Your task to perform on an android device: turn on data saver in the chrome app Image 0: 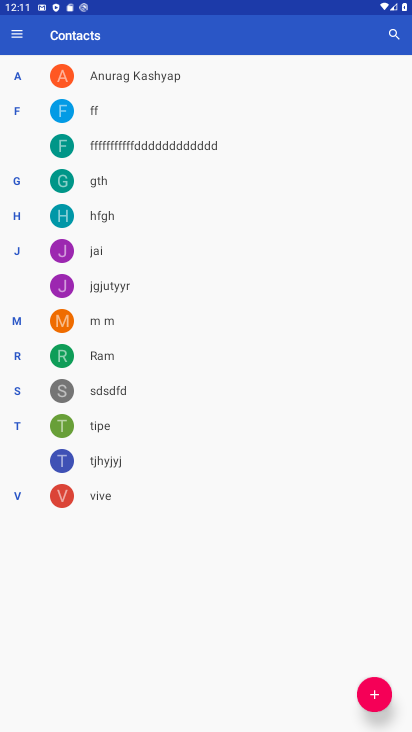
Step 0: press home button
Your task to perform on an android device: turn on data saver in the chrome app Image 1: 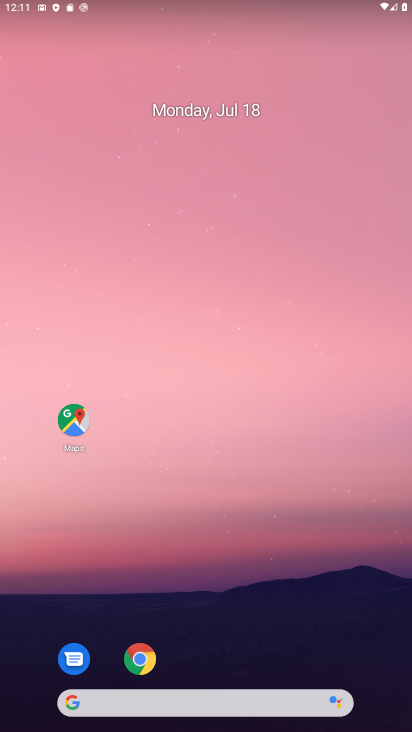
Step 1: click (137, 656)
Your task to perform on an android device: turn on data saver in the chrome app Image 2: 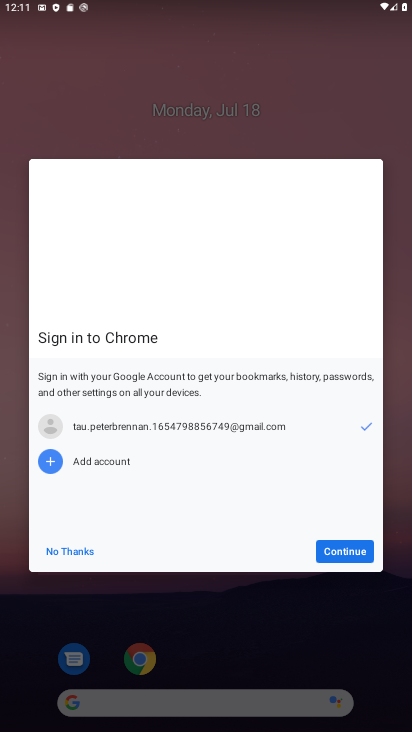
Step 2: click (341, 557)
Your task to perform on an android device: turn on data saver in the chrome app Image 3: 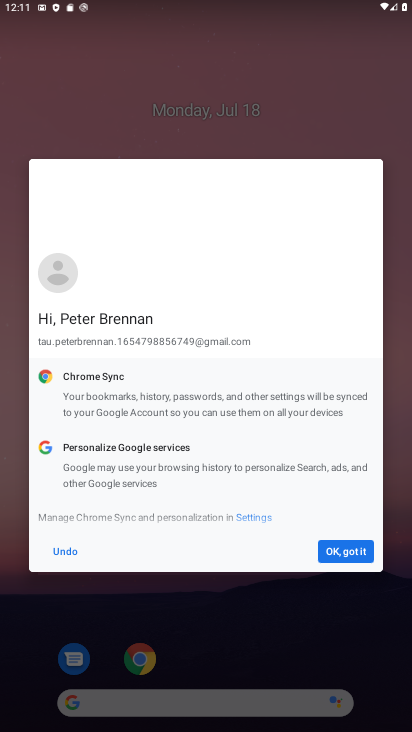
Step 3: click (343, 545)
Your task to perform on an android device: turn on data saver in the chrome app Image 4: 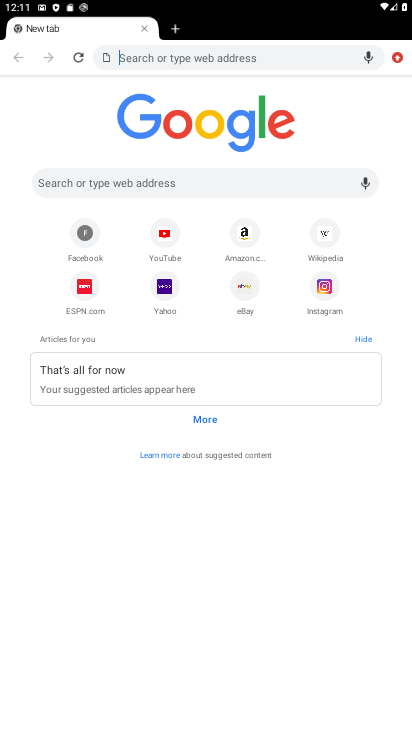
Step 4: click (401, 57)
Your task to perform on an android device: turn on data saver in the chrome app Image 5: 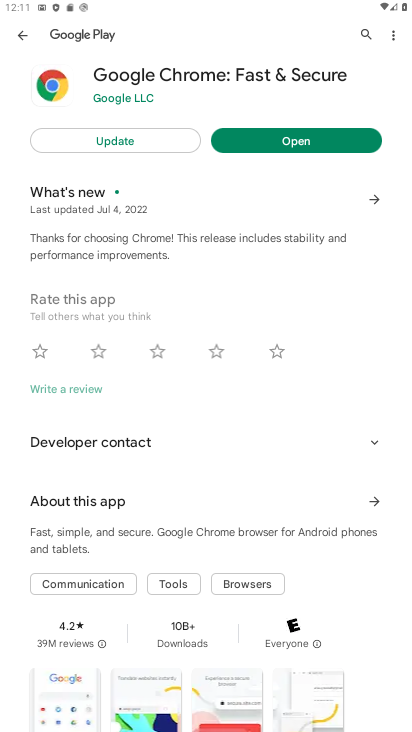
Step 5: press back button
Your task to perform on an android device: turn on data saver in the chrome app Image 6: 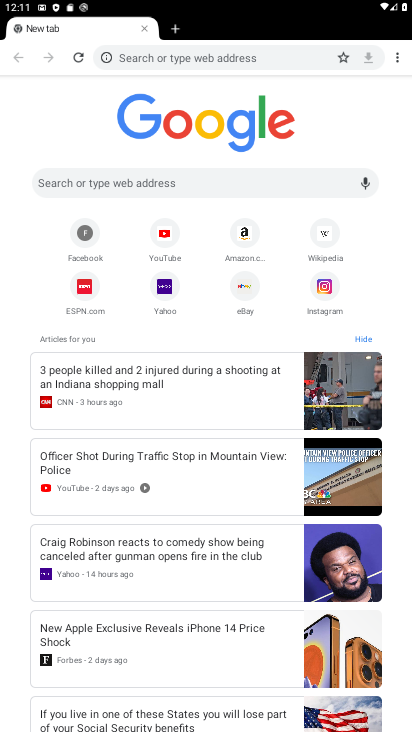
Step 6: click (396, 56)
Your task to perform on an android device: turn on data saver in the chrome app Image 7: 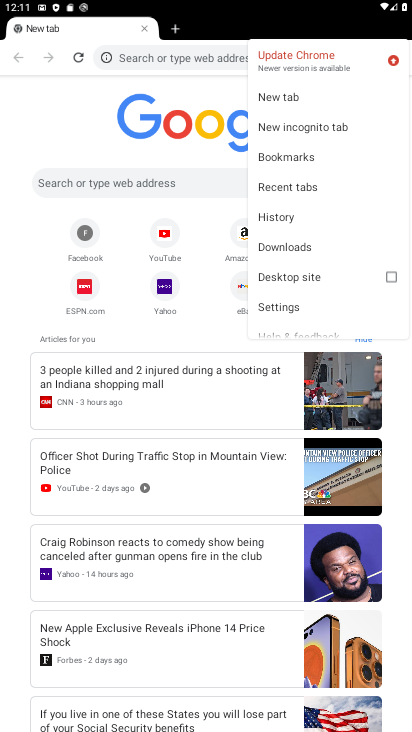
Step 7: click (282, 307)
Your task to perform on an android device: turn on data saver in the chrome app Image 8: 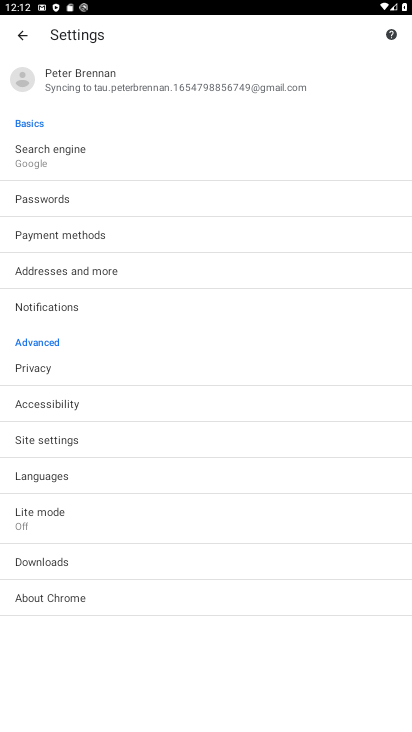
Step 8: click (51, 523)
Your task to perform on an android device: turn on data saver in the chrome app Image 9: 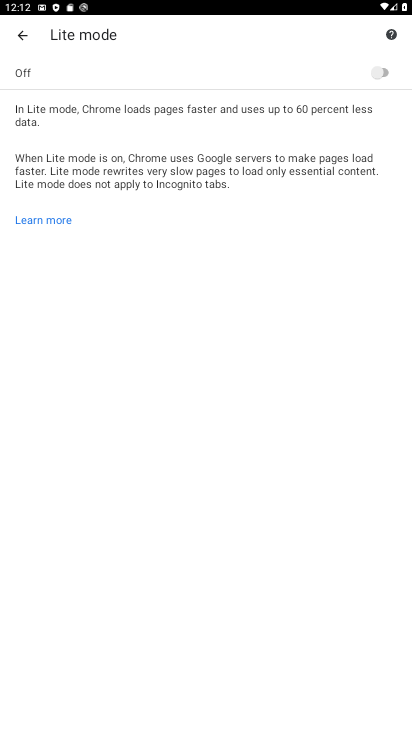
Step 9: click (358, 65)
Your task to perform on an android device: turn on data saver in the chrome app Image 10: 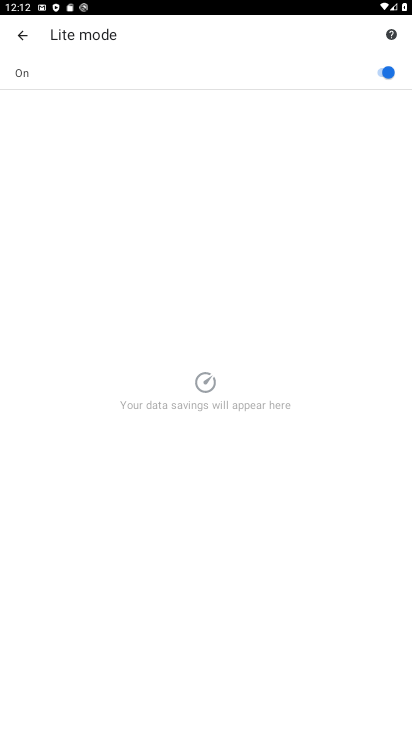
Step 10: task complete